Your task to perform on an android device: Open network settings Image 0: 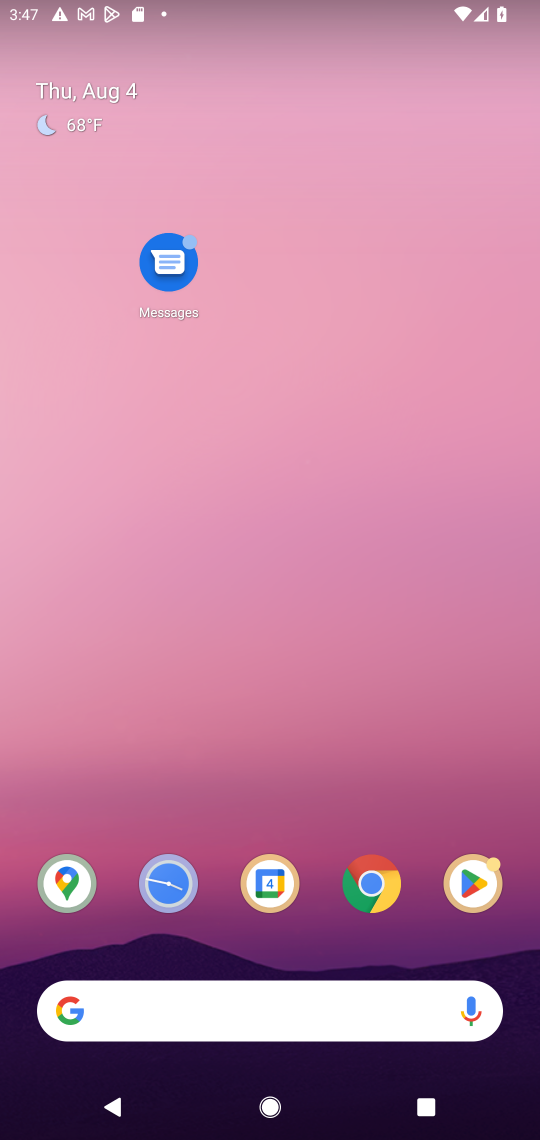
Step 0: drag from (313, 922) to (336, 118)
Your task to perform on an android device: Open network settings Image 1: 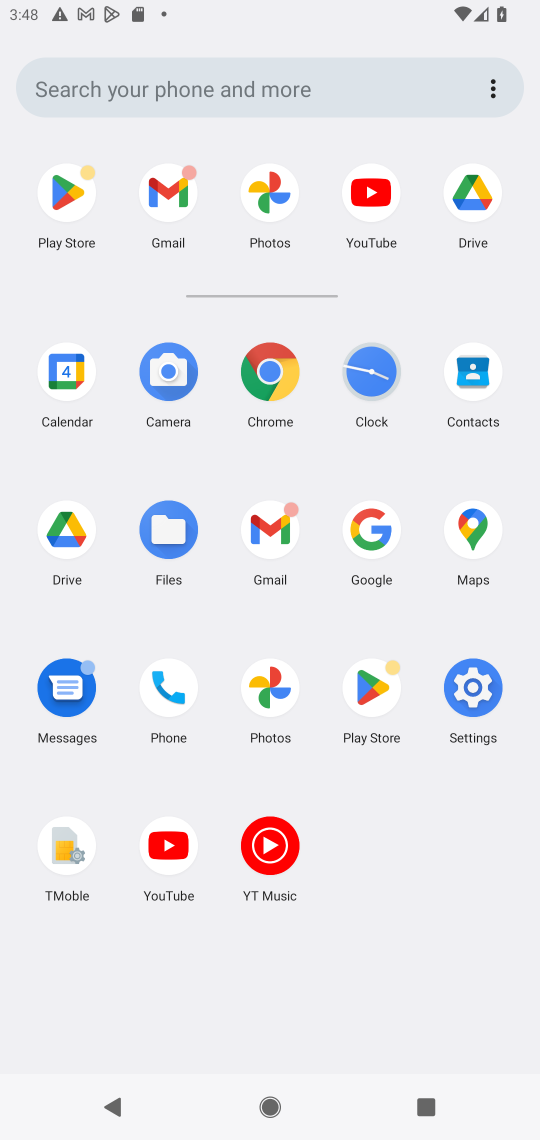
Step 1: click (467, 691)
Your task to perform on an android device: Open network settings Image 2: 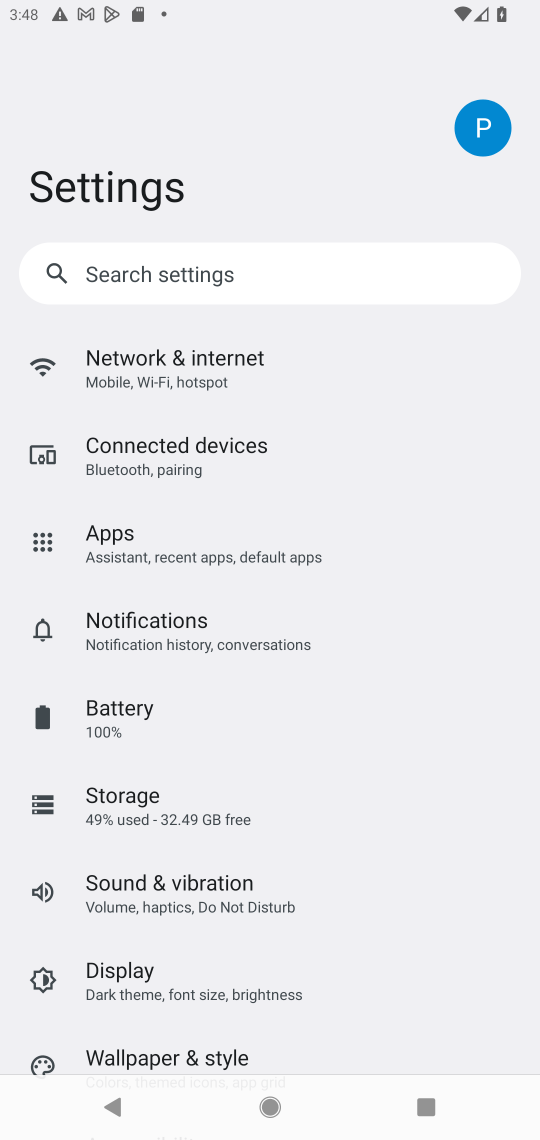
Step 2: click (206, 353)
Your task to perform on an android device: Open network settings Image 3: 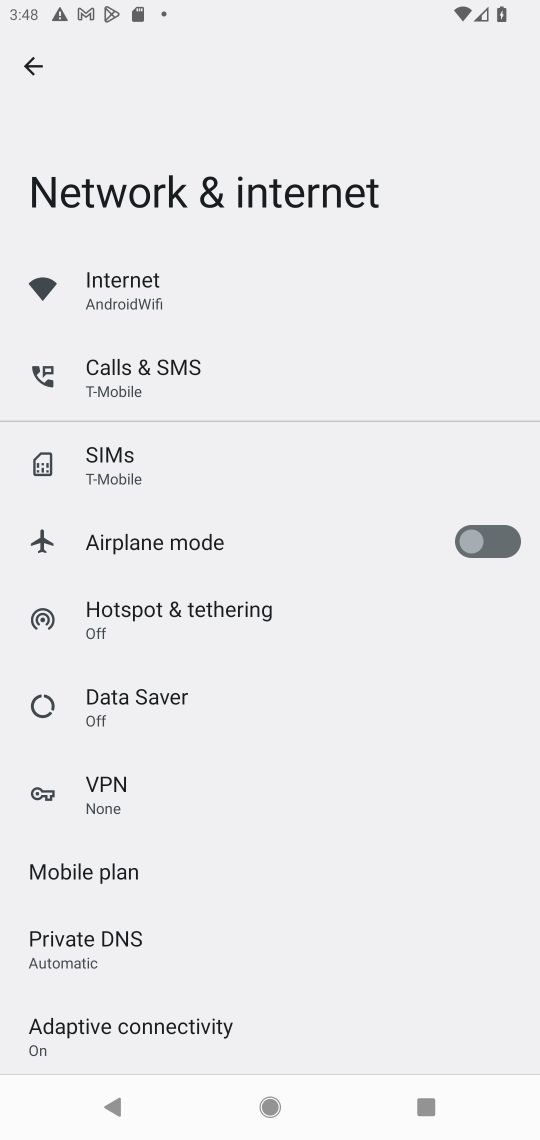
Step 3: click (124, 296)
Your task to perform on an android device: Open network settings Image 4: 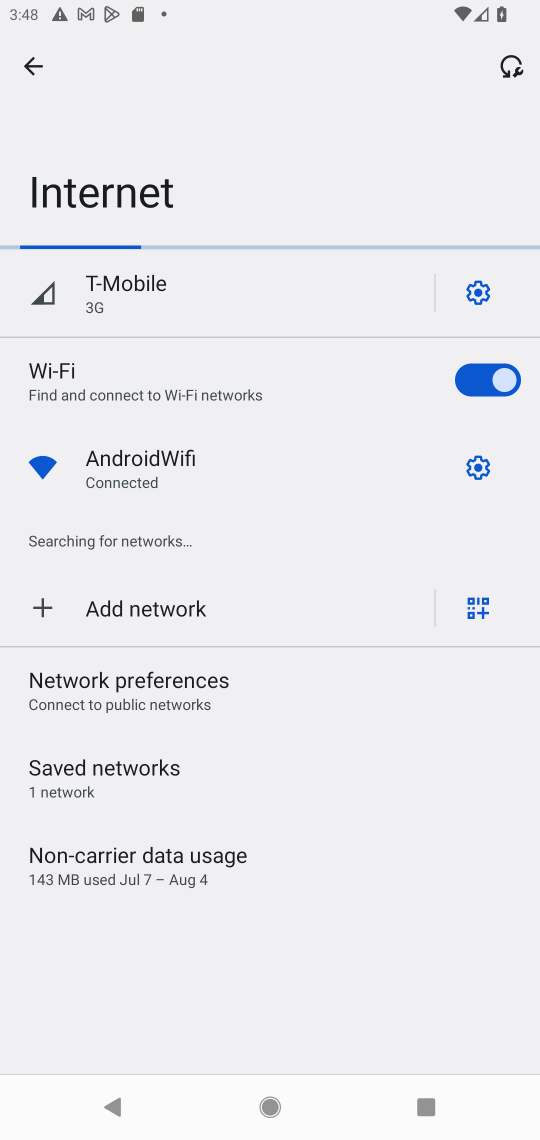
Step 4: click (132, 684)
Your task to perform on an android device: Open network settings Image 5: 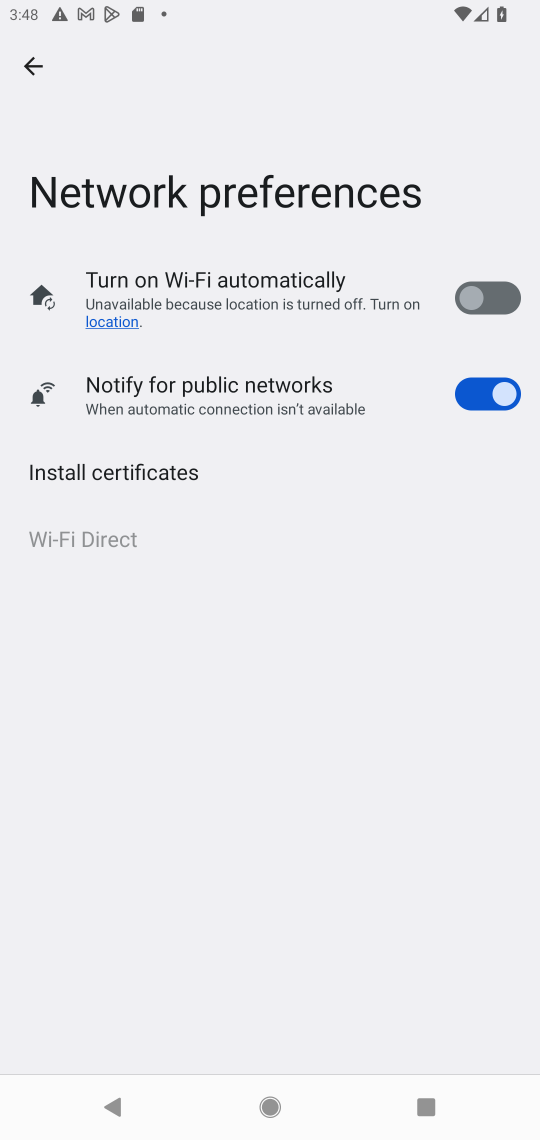
Step 5: task complete